Your task to perform on an android device: open a bookmark in the chrome app Image 0: 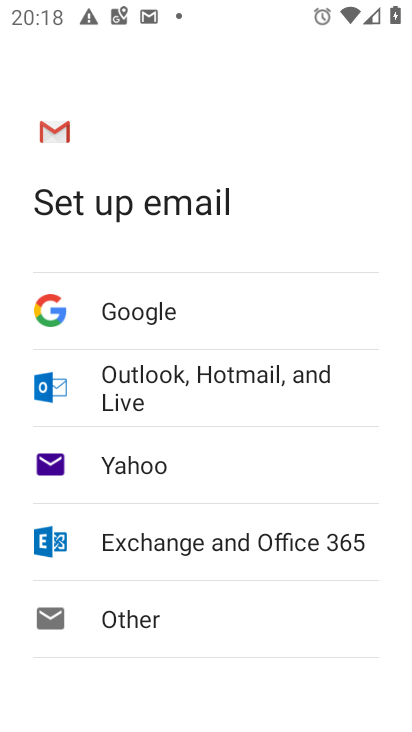
Step 0: press home button
Your task to perform on an android device: open a bookmark in the chrome app Image 1: 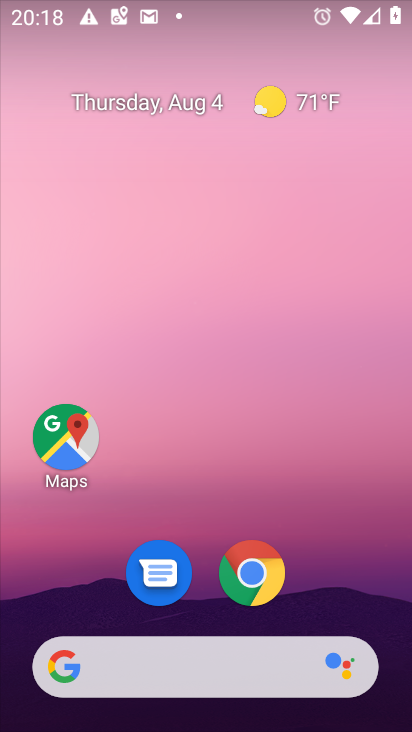
Step 1: click (274, 572)
Your task to perform on an android device: open a bookmark in the chrome app Image 2: 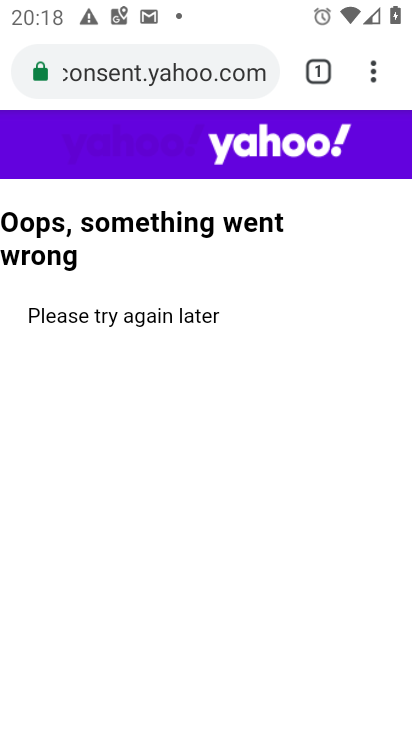
Step 2: drag from (375, 65) to (192, 274)
Your task to perform on an android device: open a bookmark in the chrome app Image 3: 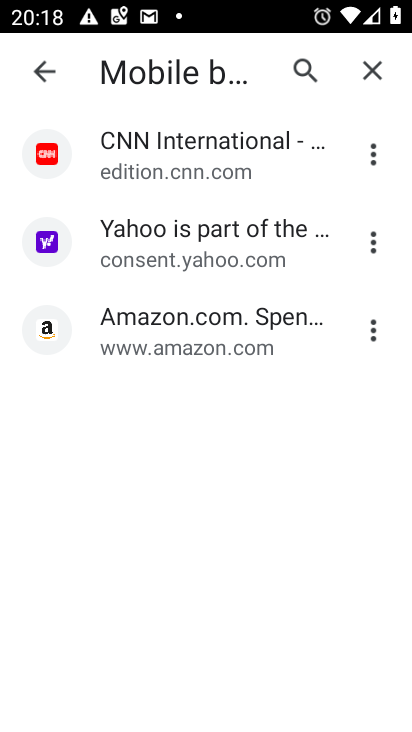
Step 3: click (206, 315)
Your task to perform on an android device: open a bookmark in the chrome app Image 4: 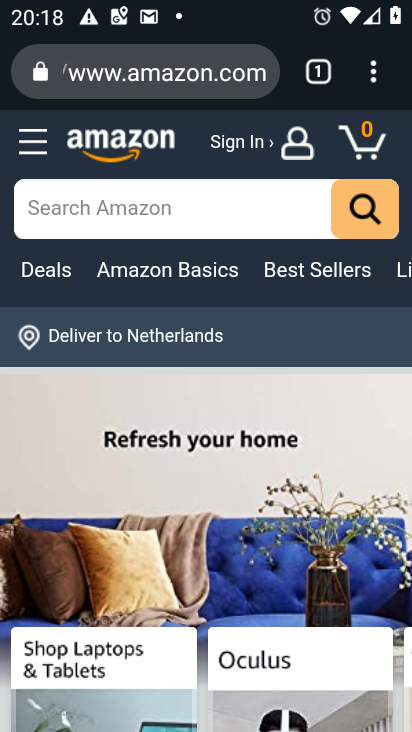
Step 4: task complete